Your task to perform on an android device: Go to display settings Image 0: 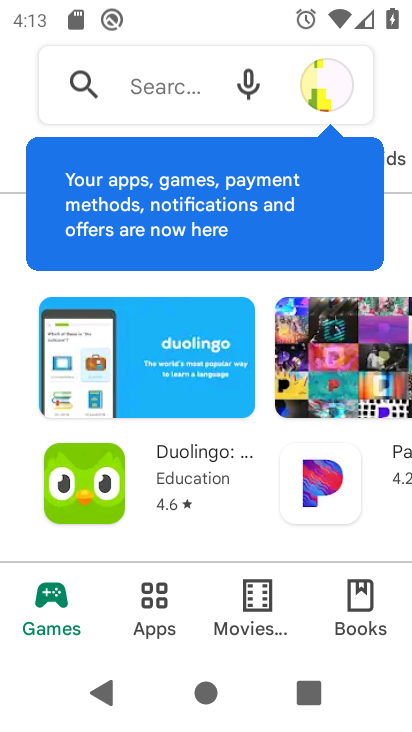
Step 0: press home button
Your task to perform on an android device: Go to display settings Image 1: 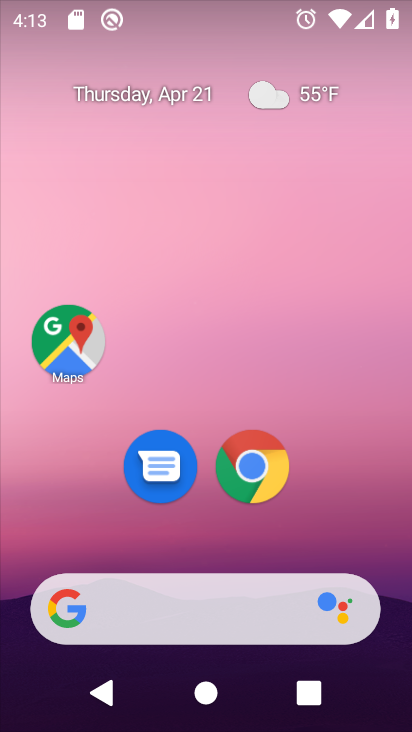
Step 1: drag from (198, 550) to (252, 52)
Your task to perform on an android device: Go to display settings Image 2: 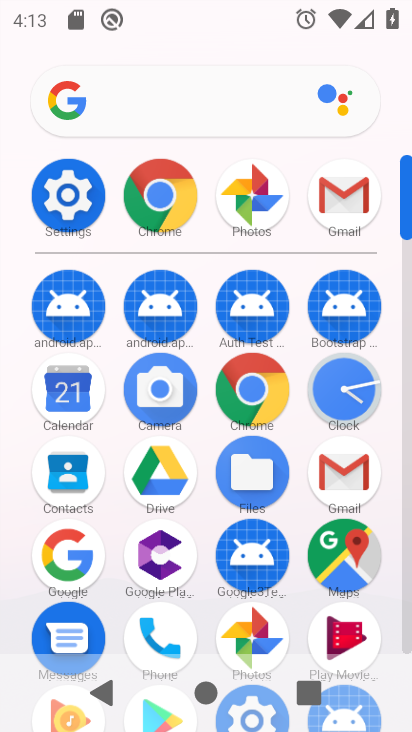
Step 2: click (80, 190)
Your task to perform on an android device: Go to display settings Image 3: 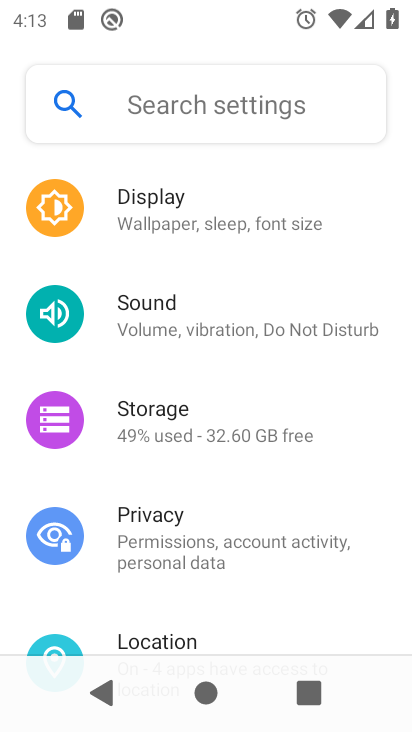
Step 3: click (113, 212)
Your task to perform on an android device: Go to display settings Image 4: 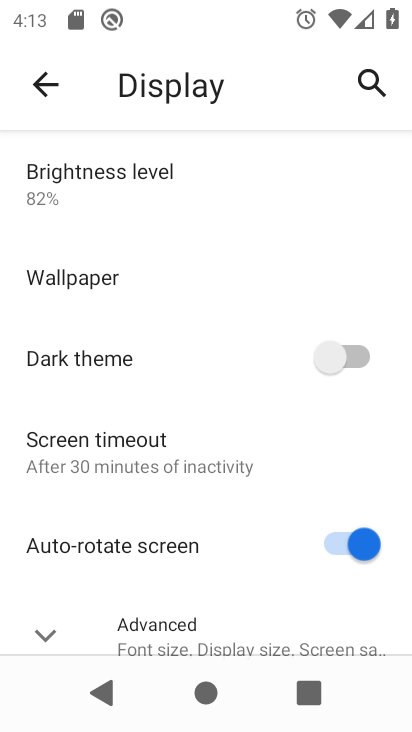
Step 4: task complete